Your task to perform on an android device: Go to wifi settings Image 0: 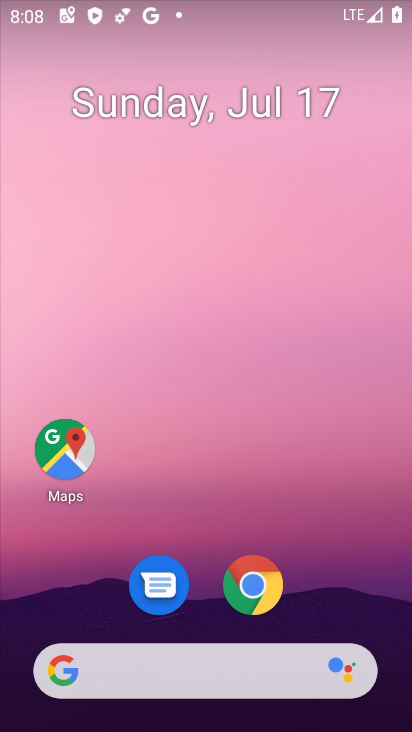
Step 0: drag from (304, 492) to (242, 1)
Your task to perform on an android device: Go to wifi settings Image 1: 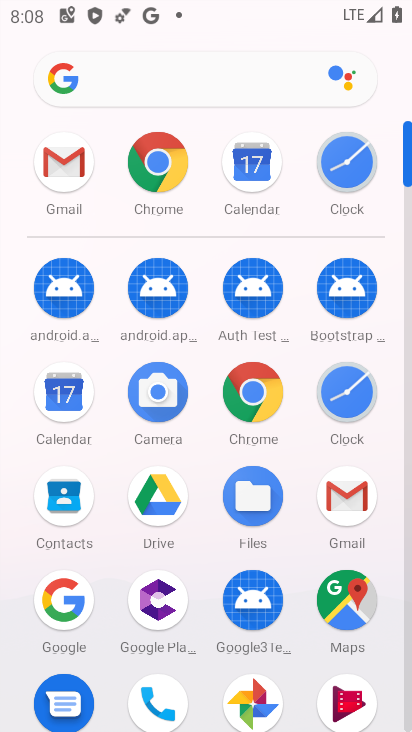
Step 1: drag from (192, 553) to (214, 141)
Your task to perform on an android device: Go to wifi settings Image 2: 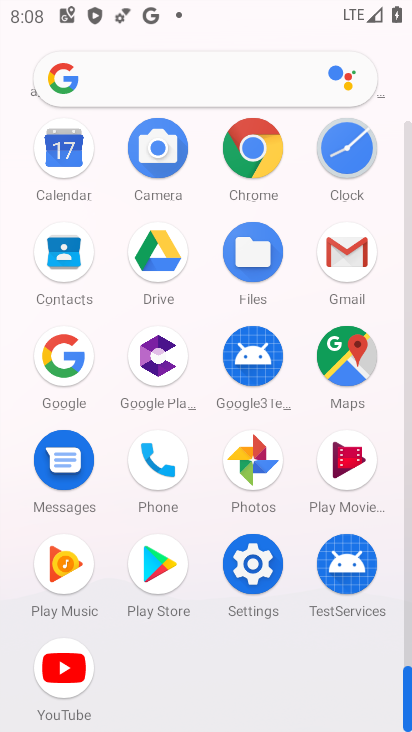
Step 2: click (264, 603)
Your task to perform on an android device: Go to wifi settings Image 3: 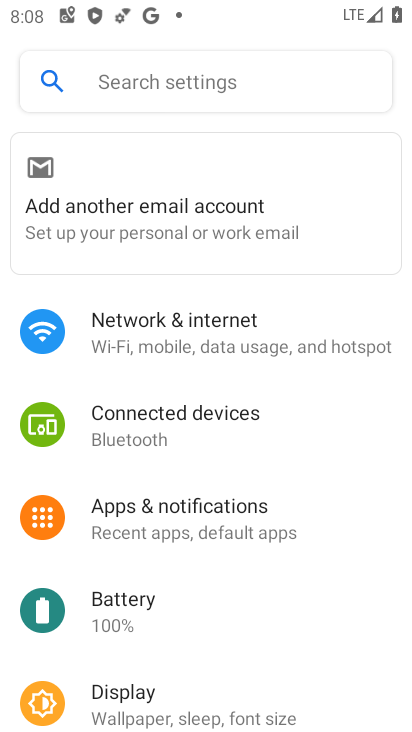
Step 3: click (269, 337)
Your task to perform on an android device: Go to wifi settings Image 4: 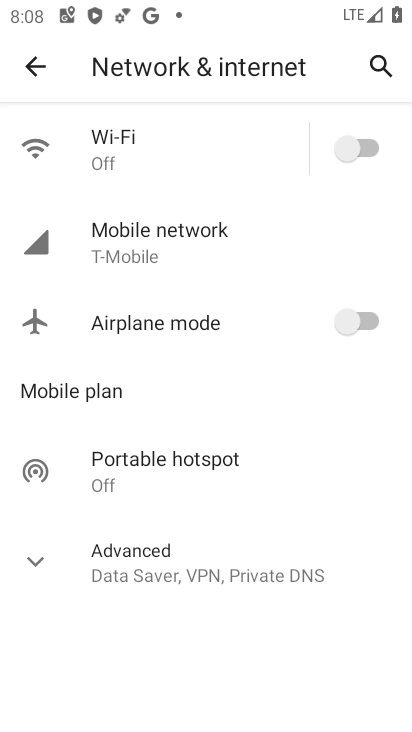
Step 4: click (123, 147)
Your task to perform on an android device: Go to wifi settings Image 5: 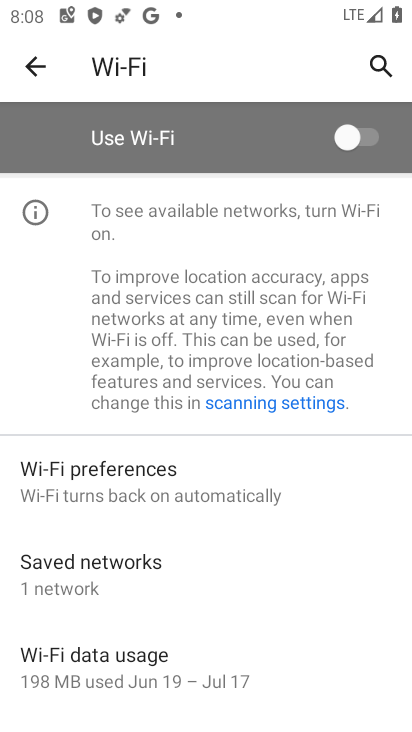
Step 5: task complete